Your task to perform on an android device: check data usage Image 0: 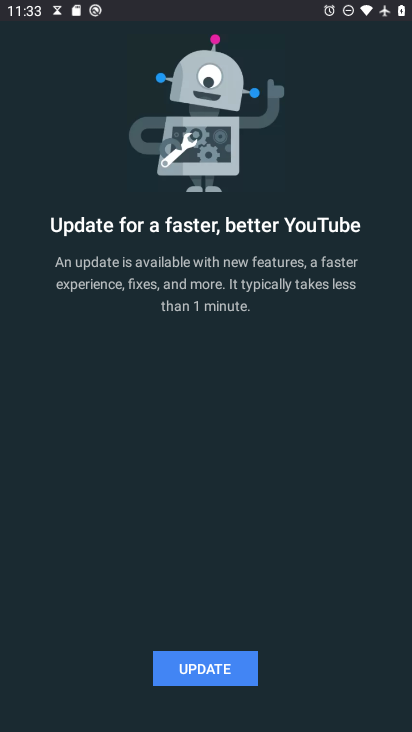
Step 0: press home button
Your task to perform on an android device: check data usage Image 1: 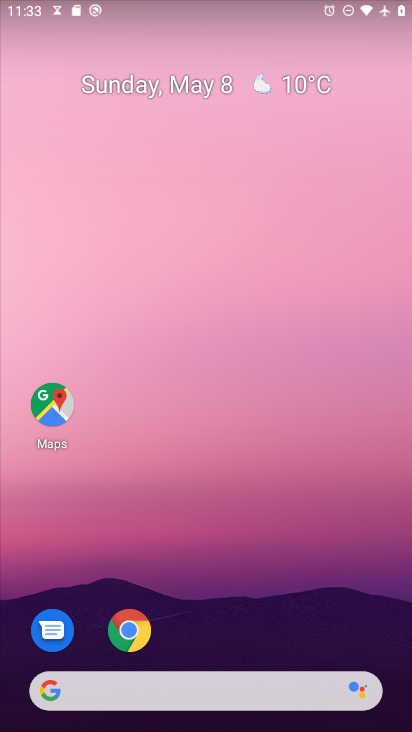
Step 1: drag from (198, 691) to (251, 151)
Your task to perform on an android device: check data usage Image 2: 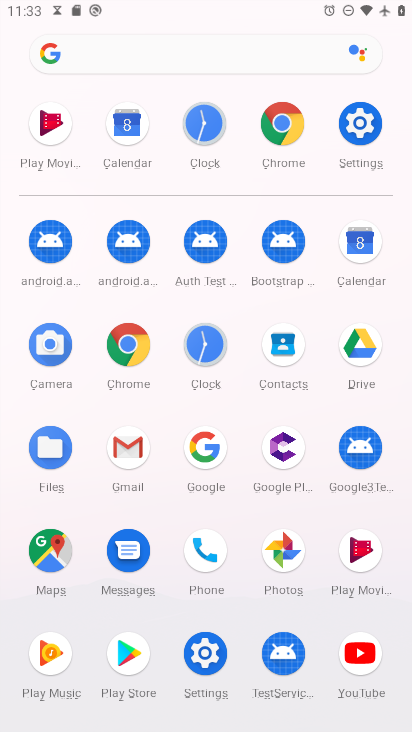
Step 2: click (355, 127)
Your task to perform on an android device: check data usage Image 3: 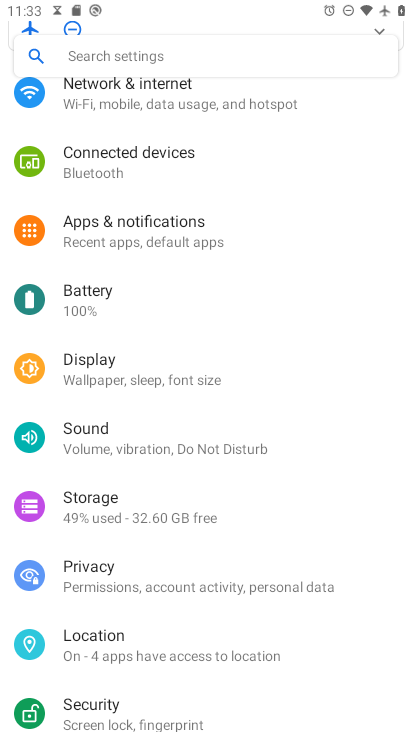
Step 3: drag from (293, 98) to (286, 350)
Your task to perform on an android device: check data usage Image 4: 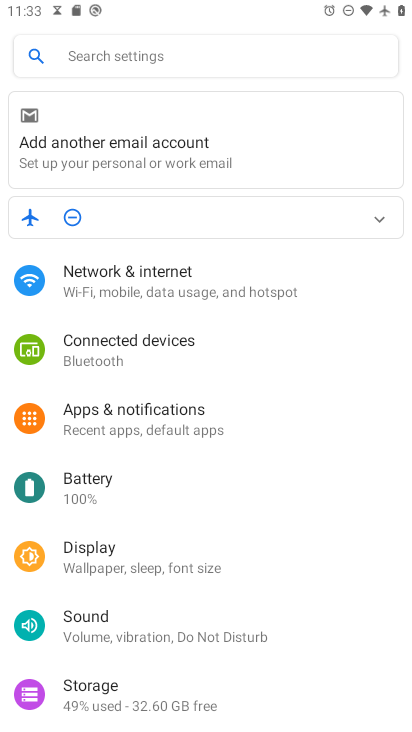
Step 4: click (170, 273)
Your task to perform on an android device: check data usage Image 5: 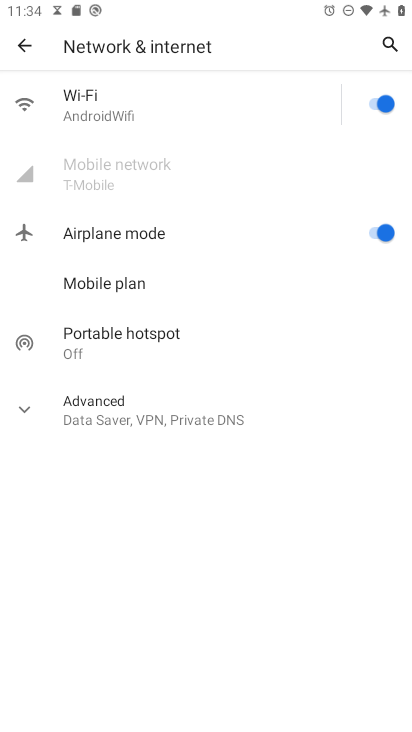
Step 5: click (99, 417)
Your task to perform on an android device: check data usage Image 6: 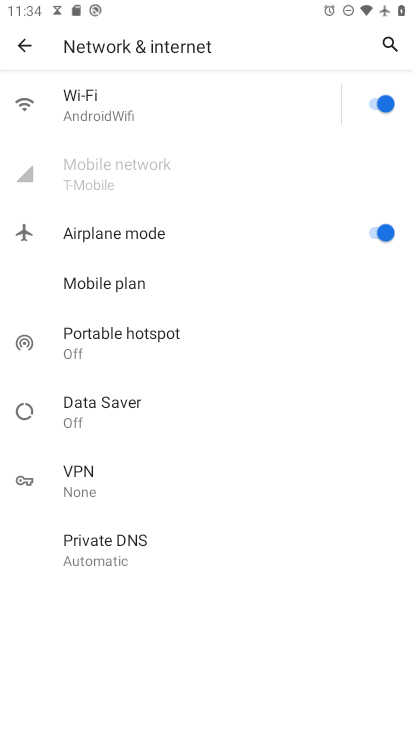
Step 6: click (143, 118)
Your task to perform on an android device: check data usage Image 7: 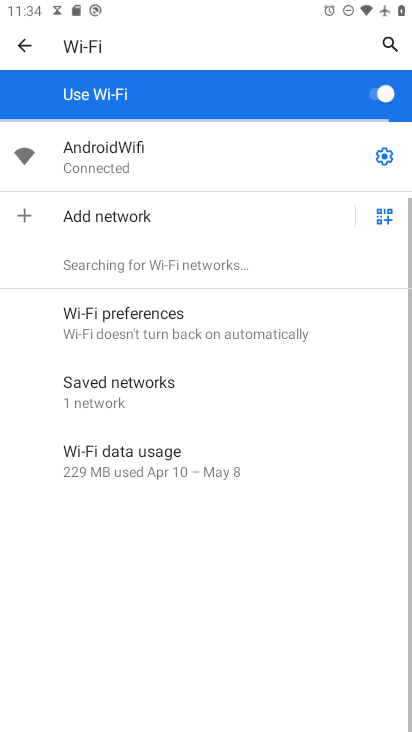
Step 7: click (144, 451)
Your task to perform on an android device: check data usage Image 8: 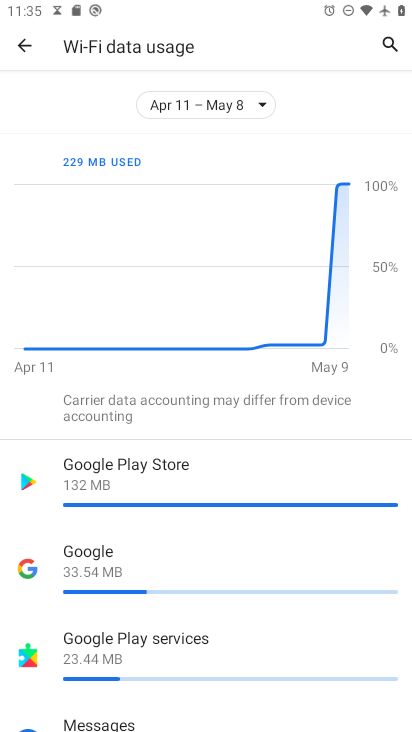
Step 8: task complete